Your task to perform on an android device: check storage Image 0: 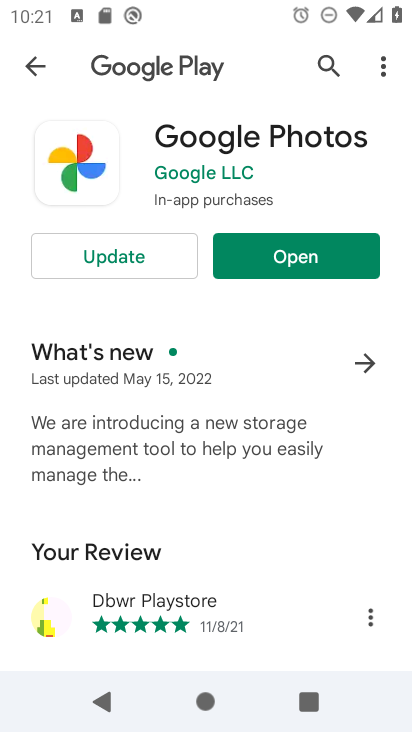
Step 0: press home button
Your task to perform on an android device: check storage Image 1: 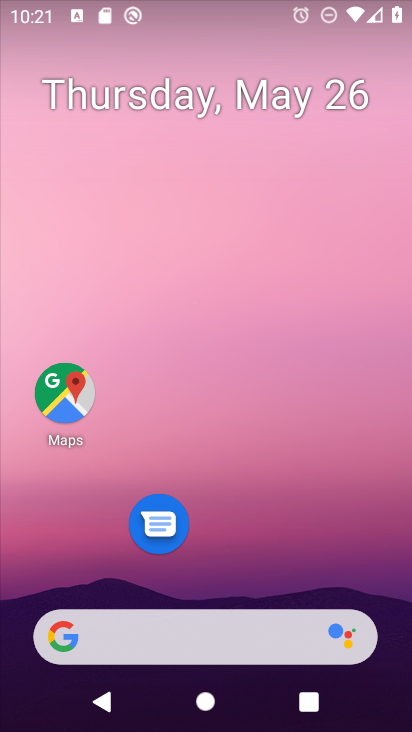
Step 1: drag from (260, 488) to (264, 20)
Your task to perform on an android device: check storage Image 2: 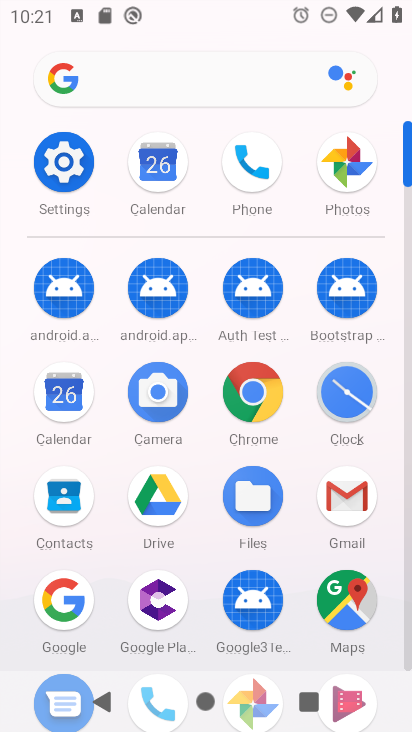
Step 2: click (80, 171)
Your task to perform on an android device: check storage Image 3: 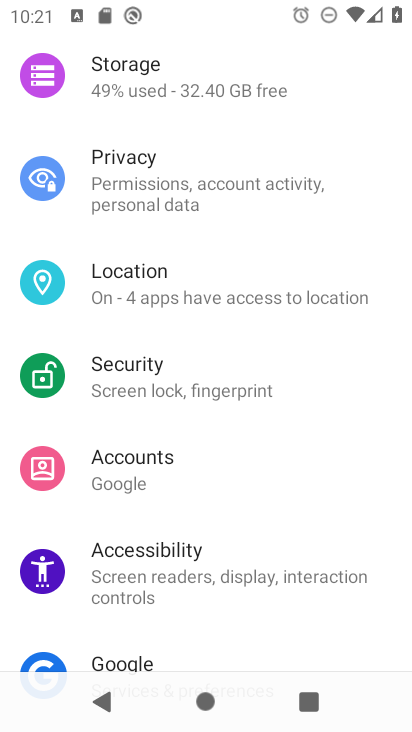
Step 3: click (250, 96)
Your task to perform on an android device: check storage Image 4: 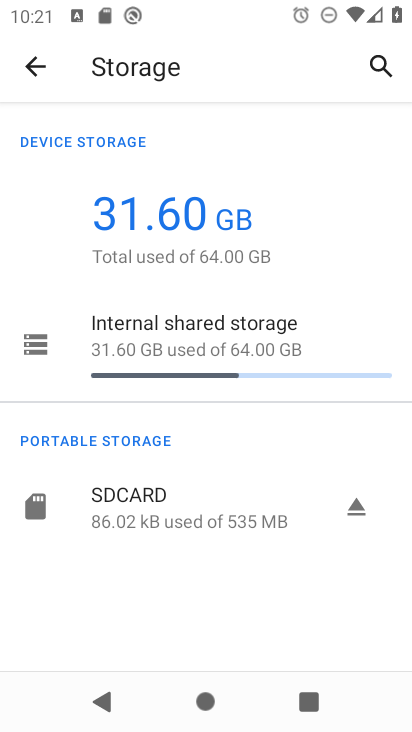
Step 4: task complete